Your task to perform on an android device: Find coffee shops on Maps Image 0: 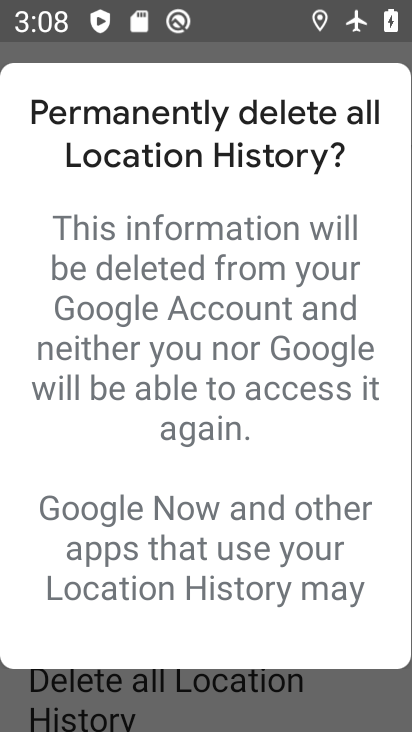
Step 0: press back button
Your task to perform on an android device: Find coffee shops on Maps Image 1: 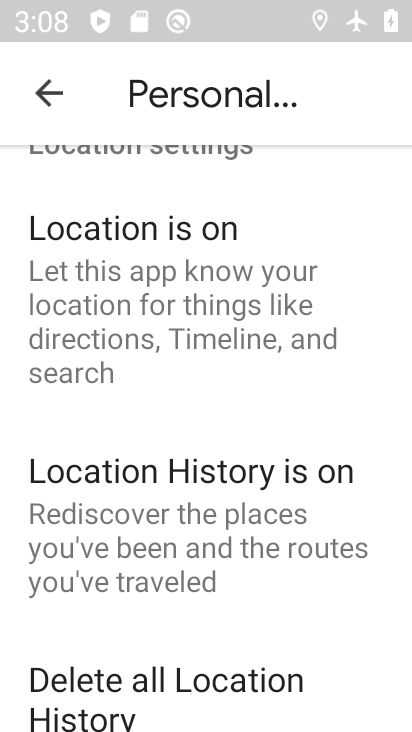
Step 1: press back button
Your task to perform on an android device: Find coffee shops on Maps Image 2: 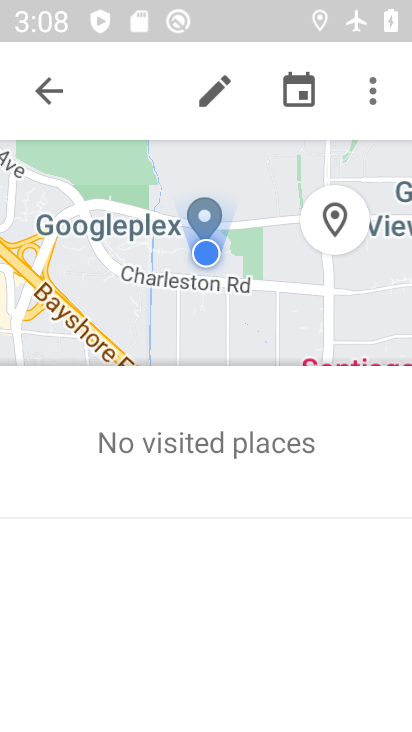
Step 2: press back button
Your task to perform on an android device: Find coffee shops on Maps Image 3: 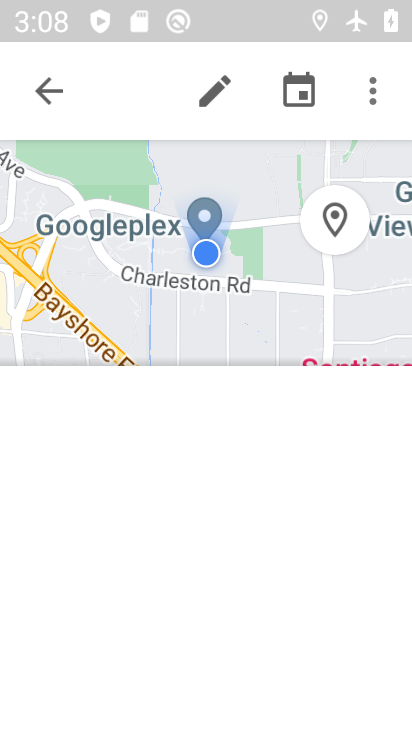
Step 3: press back button
Your task to perform on an android device: Find coffee shops on Maps Image 4: 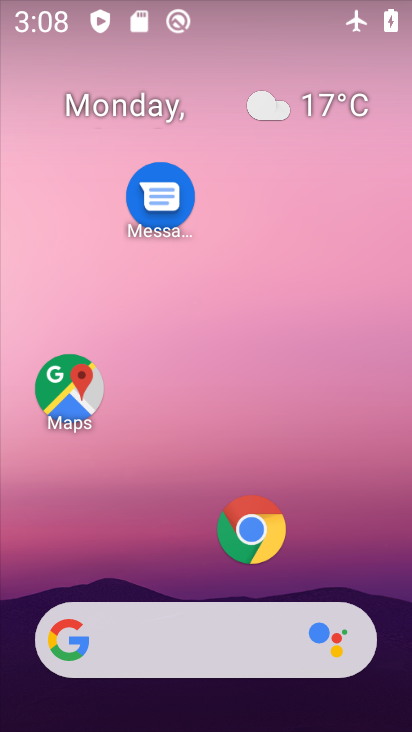
Step 4: click (62, 385)
Your task to perform on an android device: Find coffee shops on Maps Image 5: 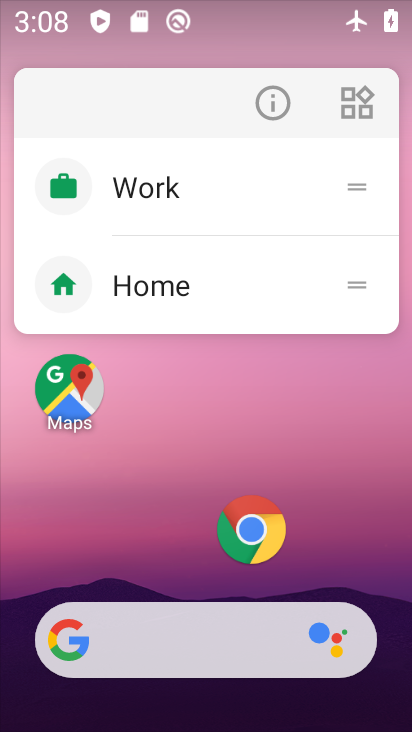
Step 5: click (68, 382)
Your task to perform on an android device: Find coffee shops on Maps Image 6: 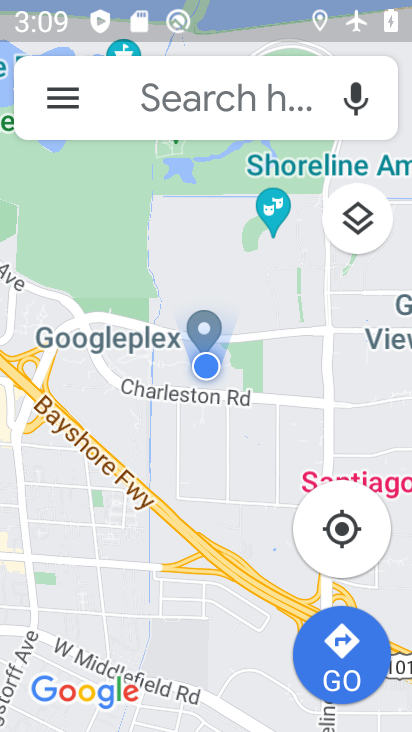
Step 6: click (183, 88)
Your task to perform on an android device: Find coffee shops on Maps Image 7: 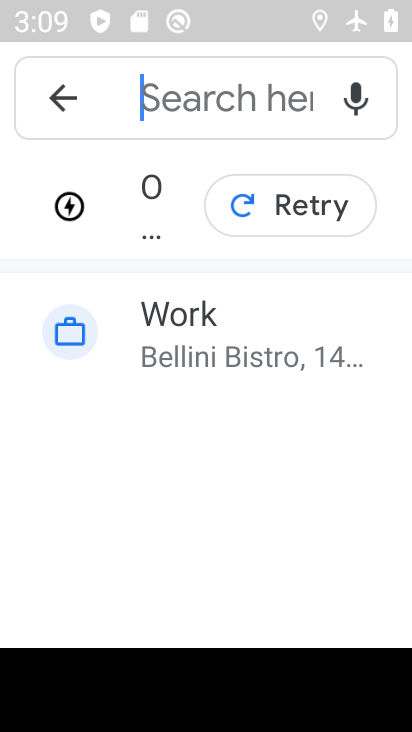
Step 7: type "coffee"
Your task to perform on an android device: Find coffee shops on Maps Image 8: 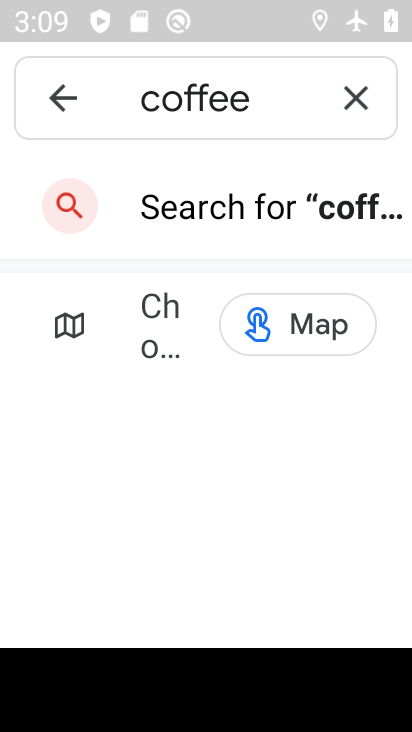
Step 8: click (292, 233)
Your task to perform on an android device: Find coffee shops on Maps Image 9: 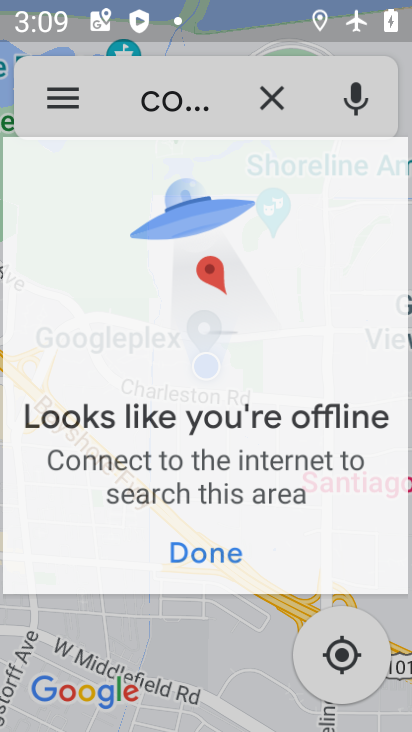
Step 9: task complete